Your task to perform on an android device: Open Youtube and go to the subscriptions tab Image 0: 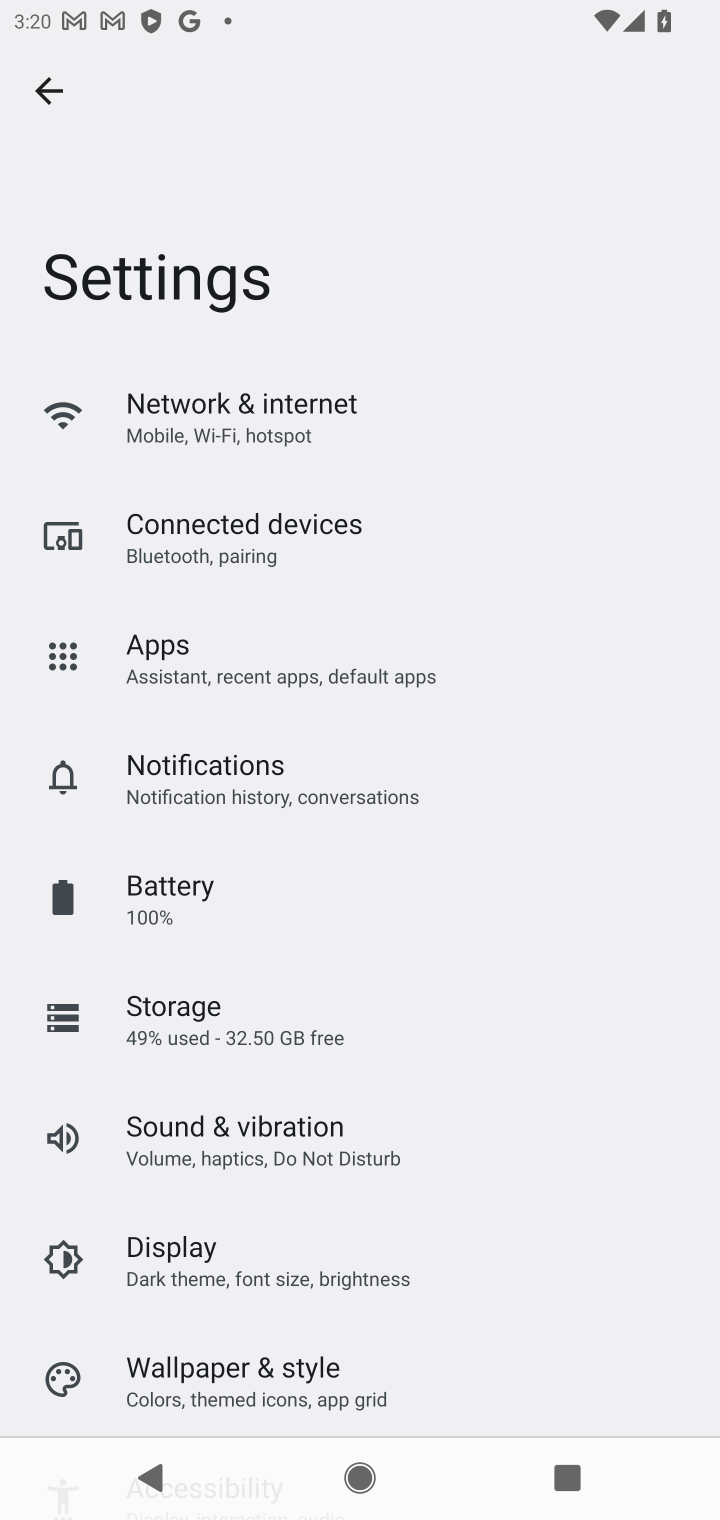
Step 0: press home button
Your task to perform on an android device: Open Youtube and go to the subscriptions tab Image 1: 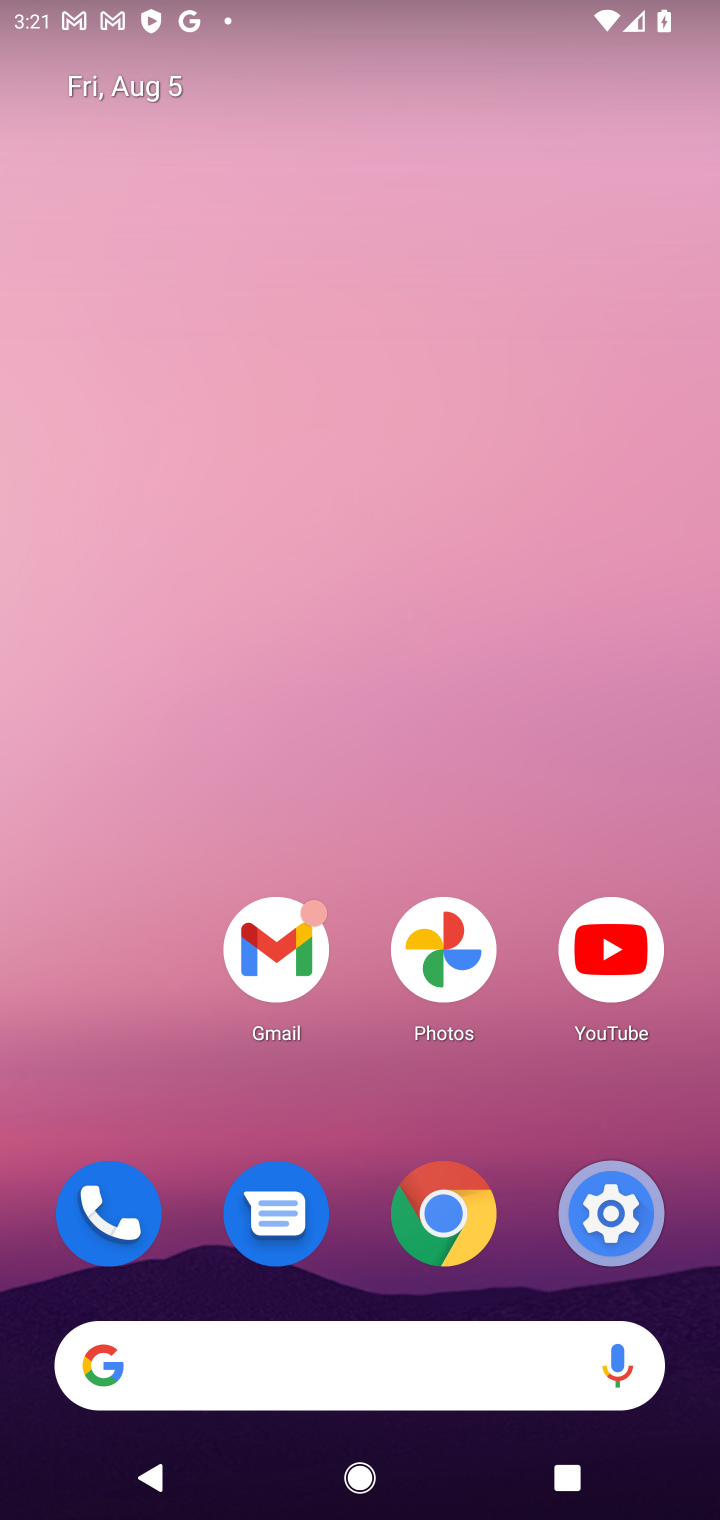
Step 1: click (588, 987)
Your task to perform on an android device: Open Youtube and go to the subscriptions tab Image 2: 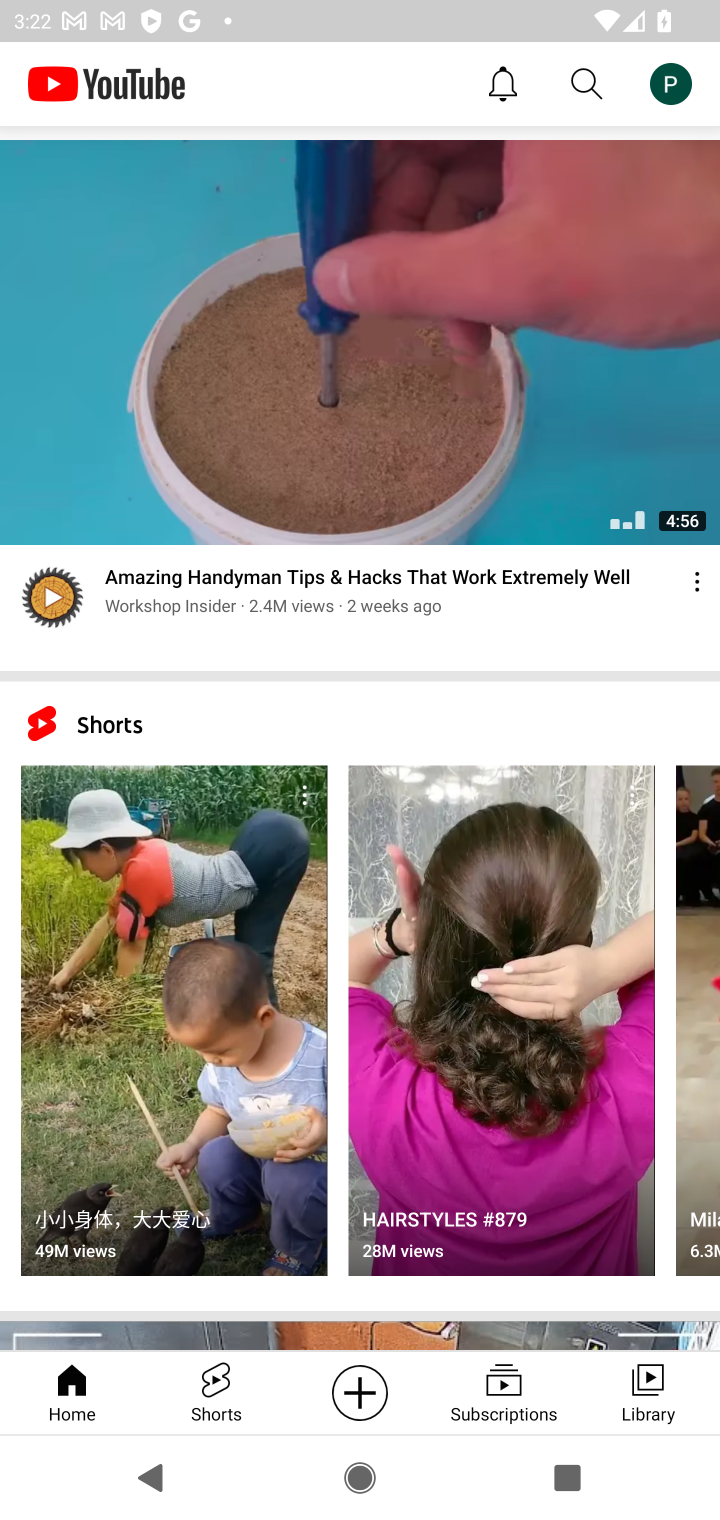
Step 2: task complete